Your task to perform on an android device: turn off smart reply in the gmail app Image 0: 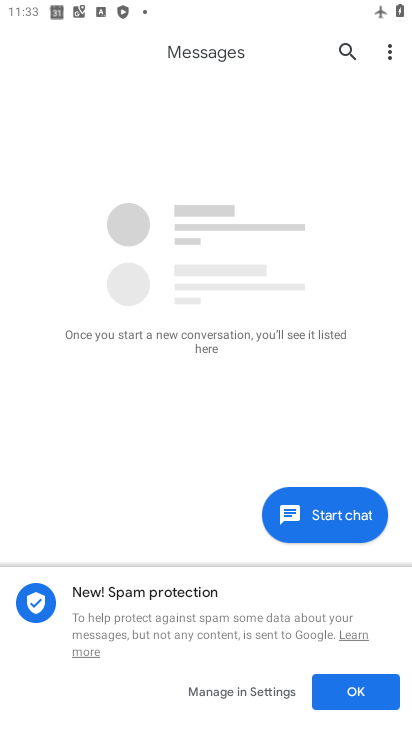
Step 0: press home button
Your task to perform on an android device: turn off smart reply in the gmail app Image 1: 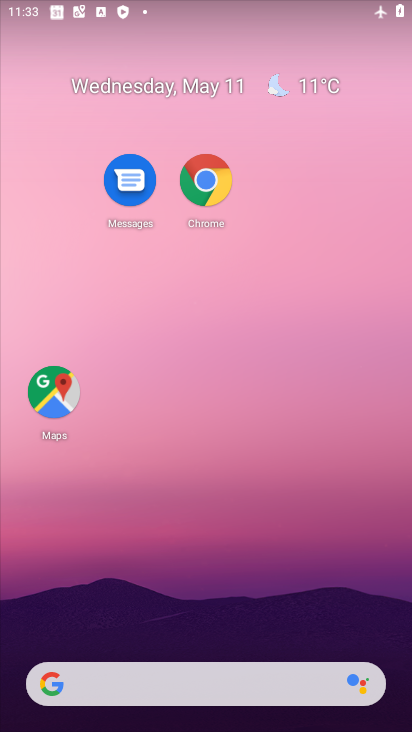
Step 1: drag from (314, 606) to (408, 85)
Your task to perform on an android device: turn off smart reply in the gmail app Image 2: 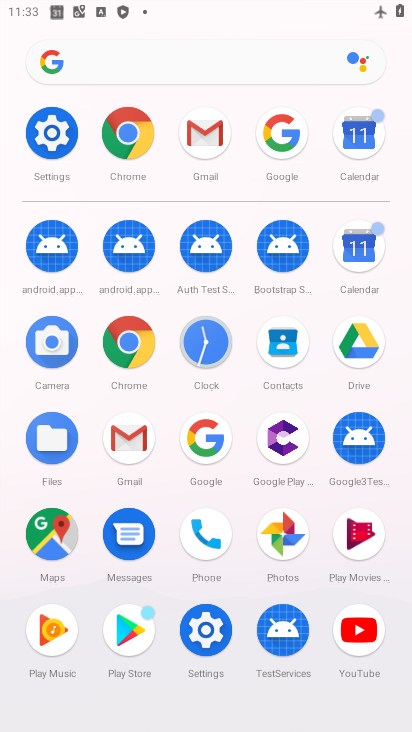
Step 2: click (140, 447)
Your task to perform on an android device: turn off smart reply in the gmail app Image 3: 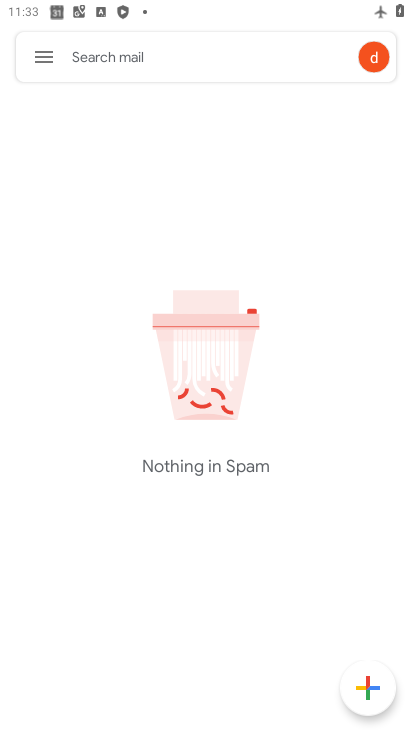
Step 3: click (47, 66)
Your task to perform on an android device: turn off smart reply in the gmail app Image 4: 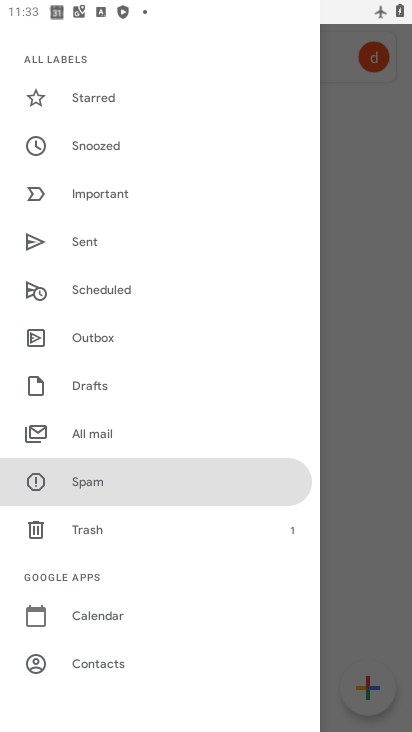
Step 4: drag from (106, 640) to (143, 269)
Your task to perform on an android device: turn off smart reply in the gmail app Image 5: 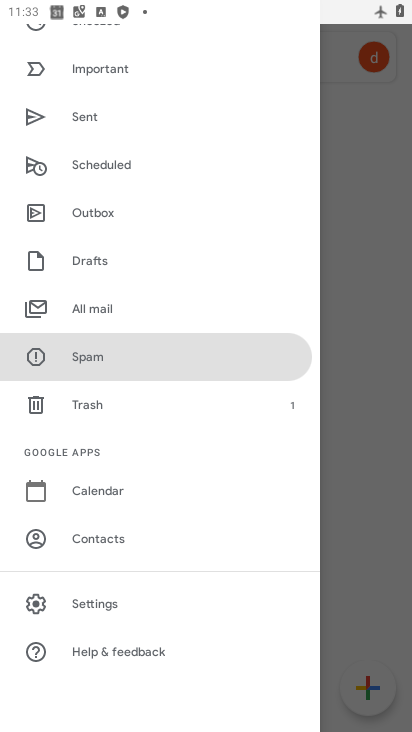
Step 5: click (145, 610)
Your task to perform on an android device: turn off smart reply in the gmail app Image 6: 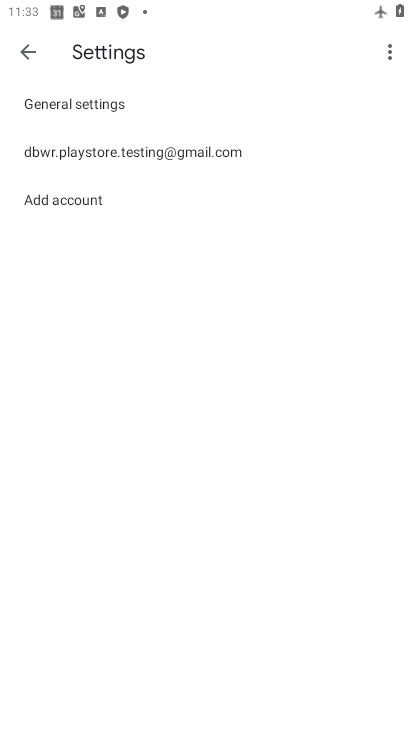
Step 6: click (147, 145)
Your task to perform on an android device: turn off smart reply in the gmail app Image 7: 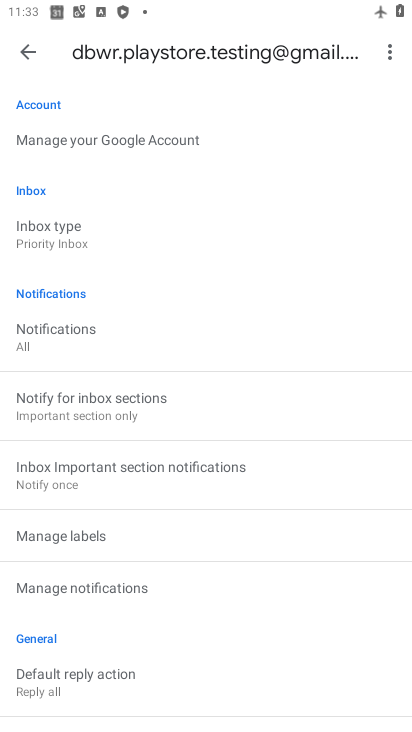
Step 7: drag from (145, 526) to (274, 105)
Your task to perform on an android device: turn off smart reply in the gmail app Image 8: 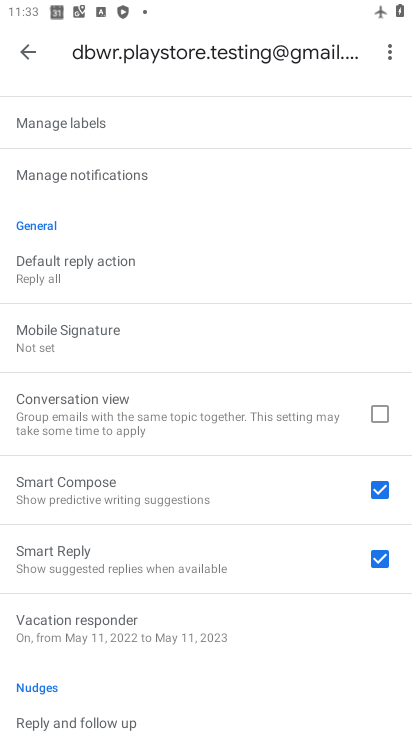
Step 8: click (382, 567)
Your task to perform on an android device: turn off smart reply in the gmail app Image 9: 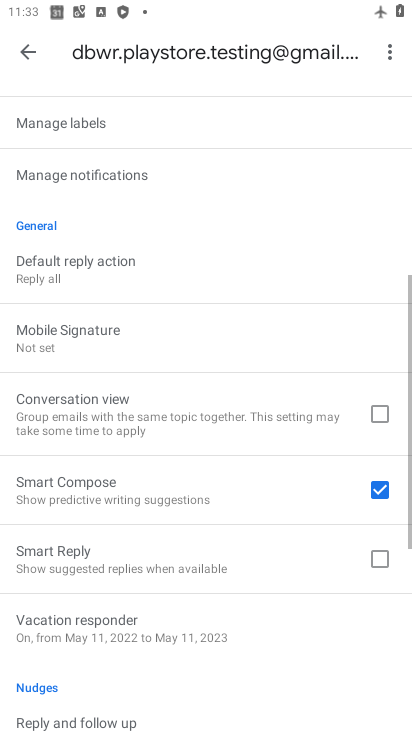
Step 9: task complete